Your task to perform on an android device: Go to Reddit.com Image 0: 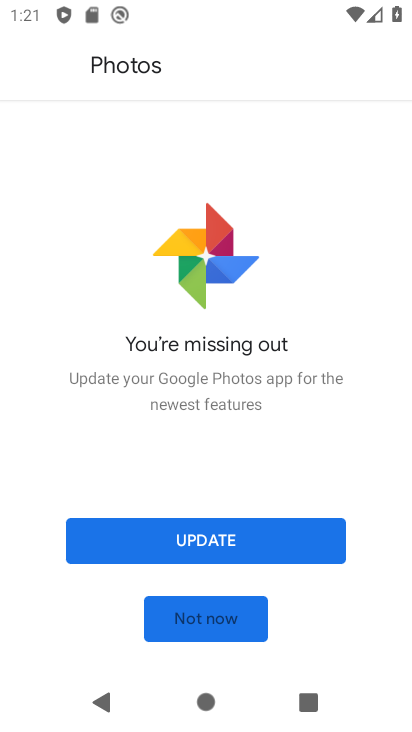
Step 0: press home button
Your task to perform on an android device: Go to Reddit.com Image 1: 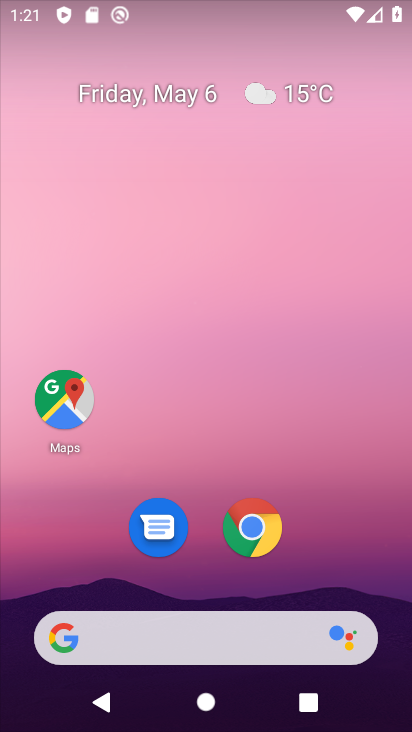
Step 1: click (197, 626)
Your task to perform on an android device: Go to Reddit.com Image 2: 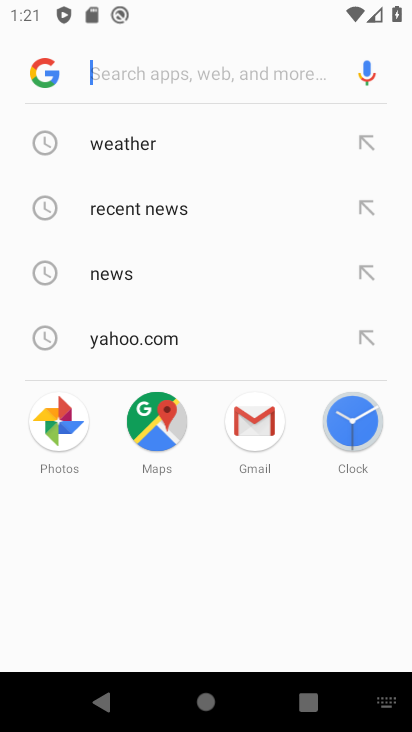
Step 2: type "reddit.com"
Your task to perform on an android device: Go to Reddit.com Image 3: 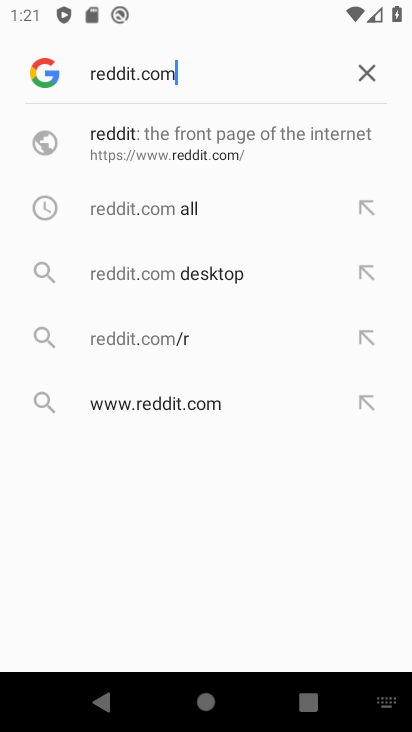
Step 3: click (228, 157)
Your task to perform on an android device: Go to Reddit.com Image 4: 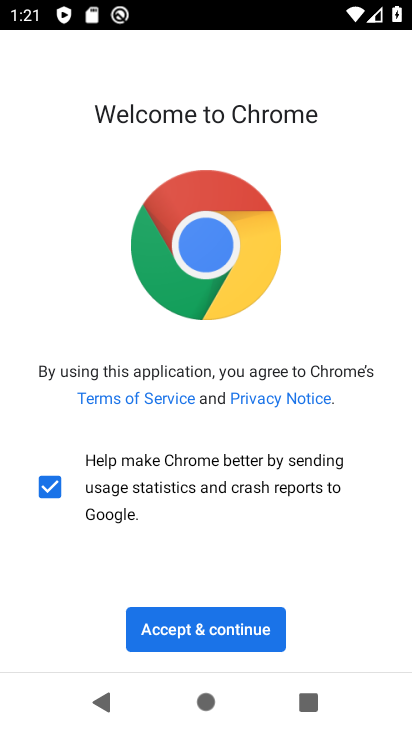
Step 4: click (259, 637)
Your task to perform on an android device: Go to Reddit.com Image 5: 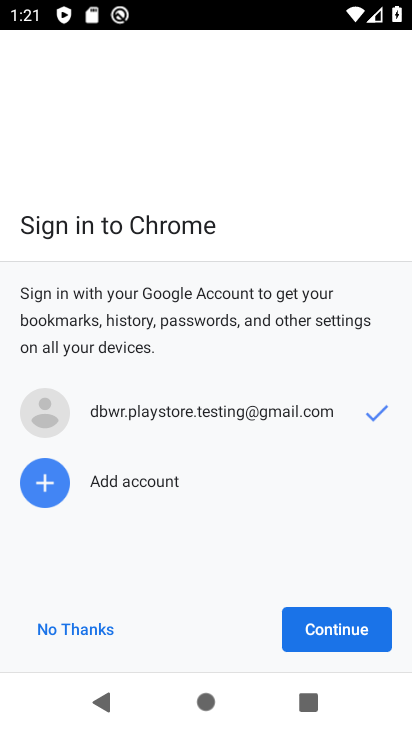
Step 5: click (341, 638)
Your task to perform on an android device: Go to Reddit.com Image 6: 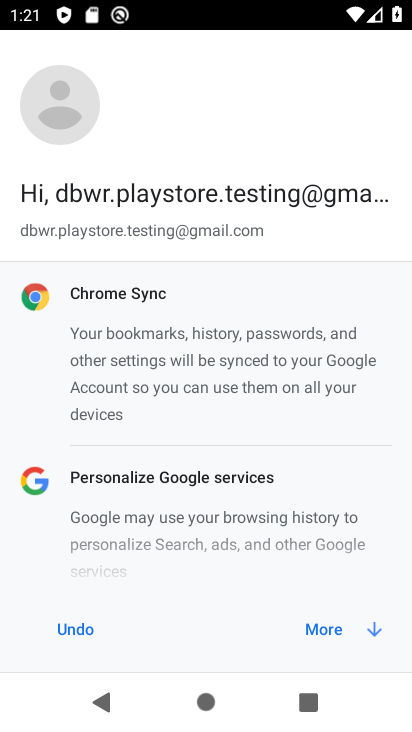
Step 6: task complete